Your task to perform on an android device: What's the weather going to be tomorrow? Image 0: 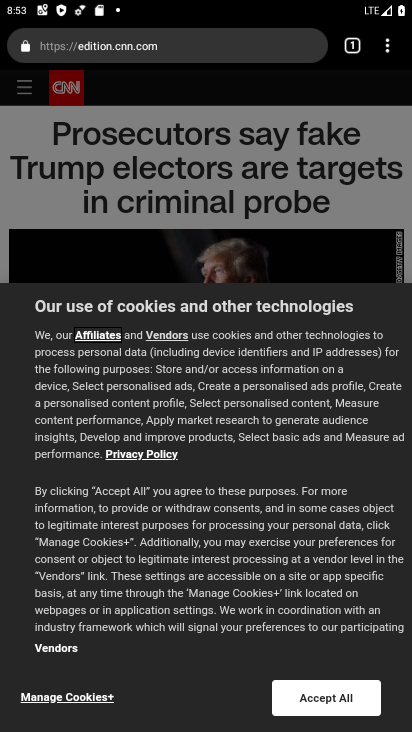
Step 0: press home button
Your task to perform on an android device: What's the weather going to be tomorrow? Image 1: 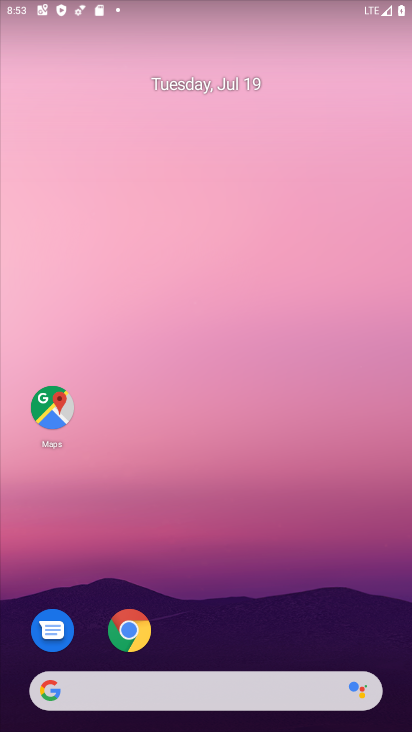
Step 1: drag from (216, 643) to (207, 178)
Your task to perform on an android device: What's the weather going to be tomorrow? Image 2: 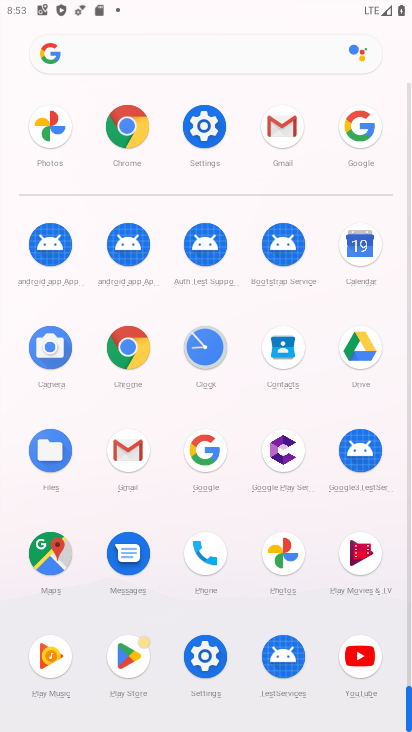
Step 2: drag from (129, 444) to (191, 189)
Your task to perform on an android device: What's the weather going to be tomorrow? Image 3: 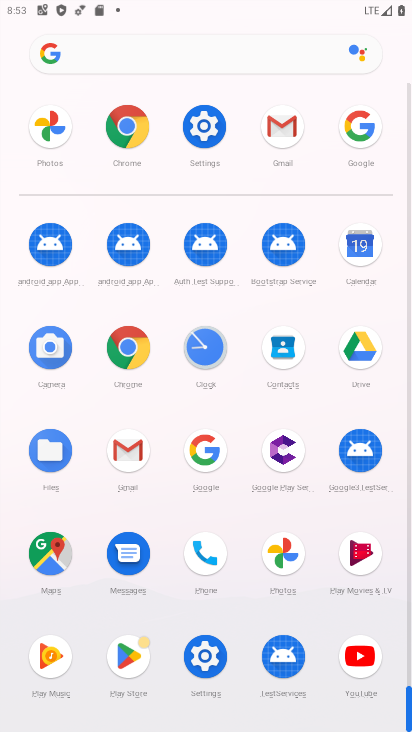
Step 3: click (206, 466)
Your task to perform on an android device: What's the weather going to be tomorrow? Image 4: 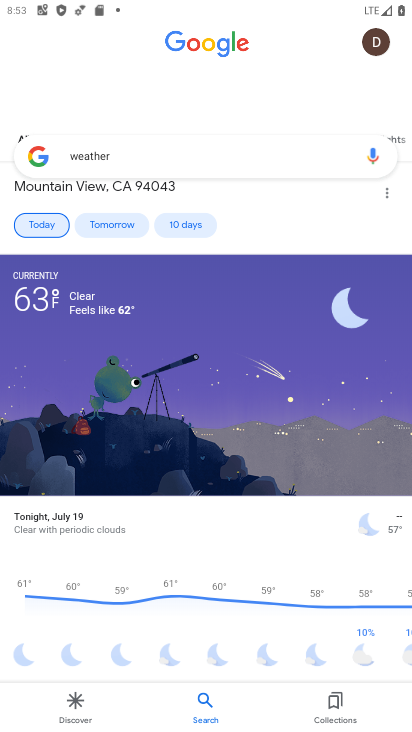
Step 4: click (119, 226)
Your task to perform on an android device: What's the weather going to be tomorrow? Image 5: 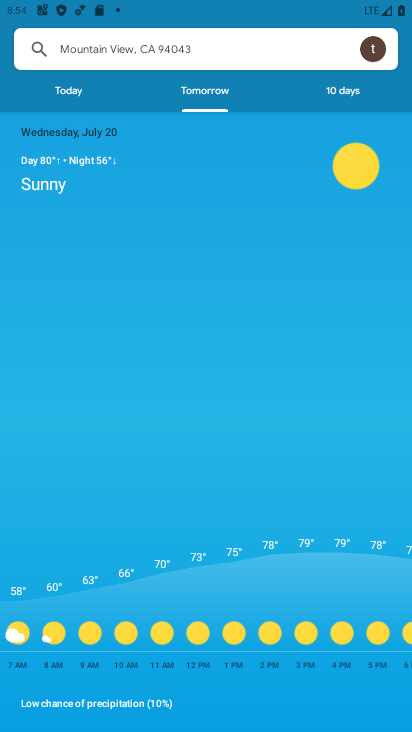
Step 5: task complete